Your task to perform on an android device: Open the phone app and click the voicemail tab. Image 0: 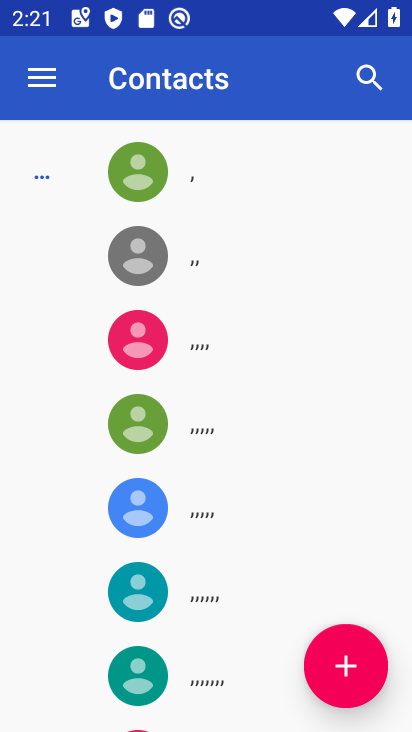
Step 0: press home button
Your task to perform on an android device: Open the phone app and click the voicemail tab. Image 1: 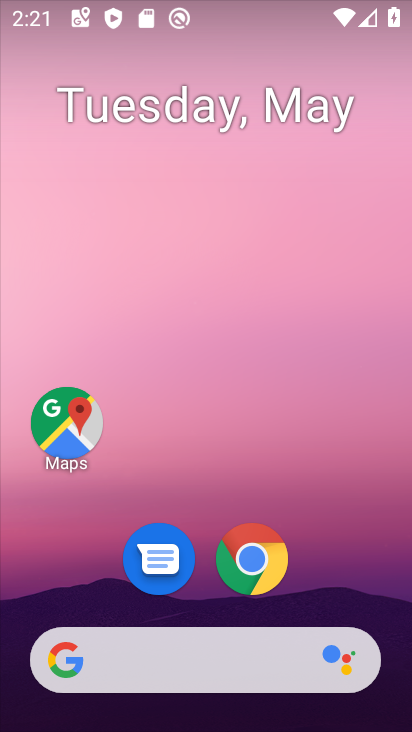
Step 1: drag from (160, 614) to (305, 180)
Your task to perform on an android device: Open the phone app and click the voicemail tab. Image 2: 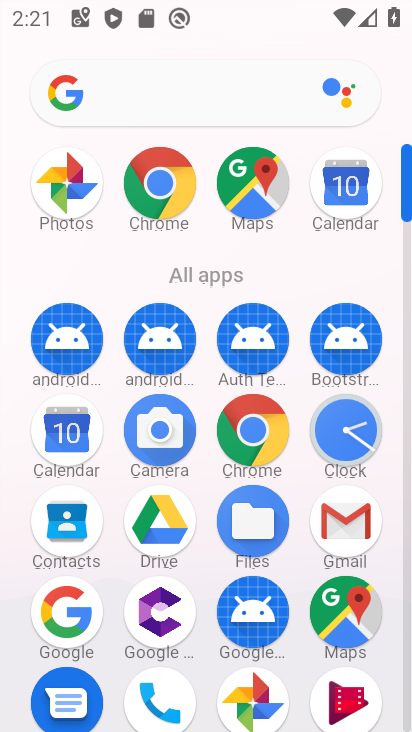
Step 2: drag from (216, 656) to (335, 423)
Your task to perform on an android device: Open the phone app and click the voicemail tab. Image 3: 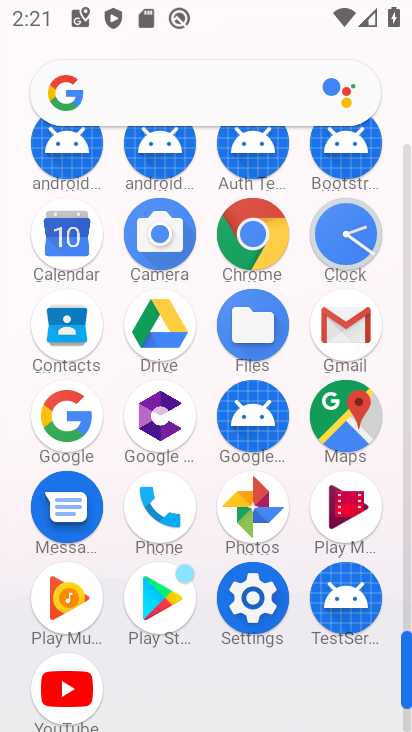
Step 3: click (173, 518)
Your task to perform on an android device: Open the phone app and click the voicemail tab. Image 4: 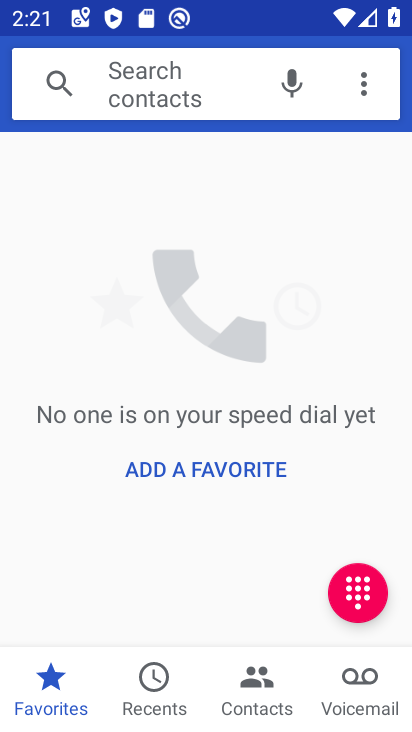
Step 4: click (348, 700)
Your task to perform on an android device: Open the phone app and click the voicemail tab. Image 5: 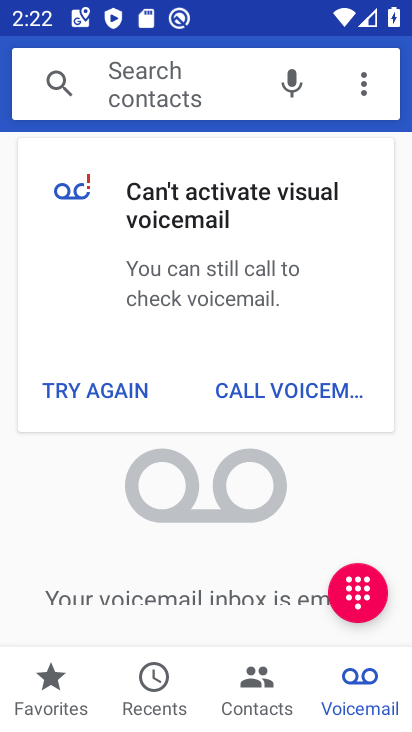
Step 5: task complete